Your task to perform on an android device: check google app version Image 0: 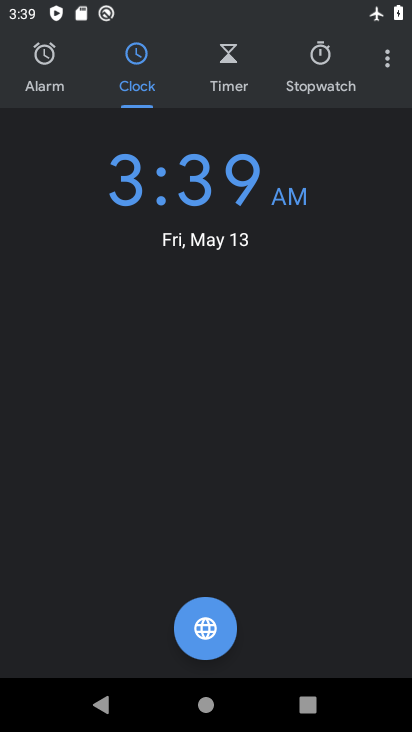
Step 0: press home button
Your task to perform on an android device: check google app version Image 1: 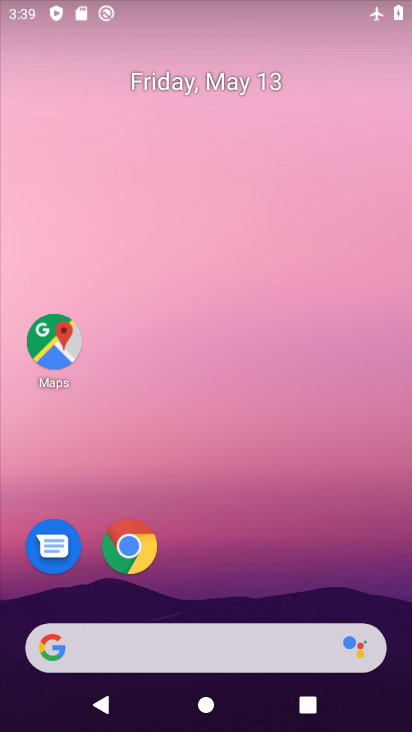
Step 1: drag from (226, 719) to (227, 232)
Your task to perform on an android device: check google app version Image 2: 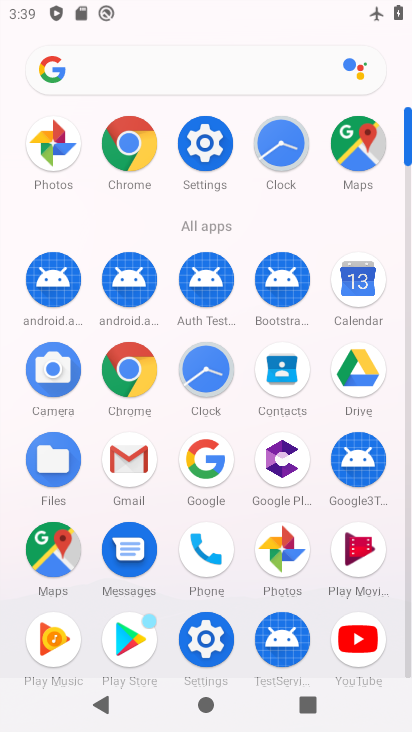
Step 2: click (209, 465)
Your task to perform on an android device: check google app version Image 3: 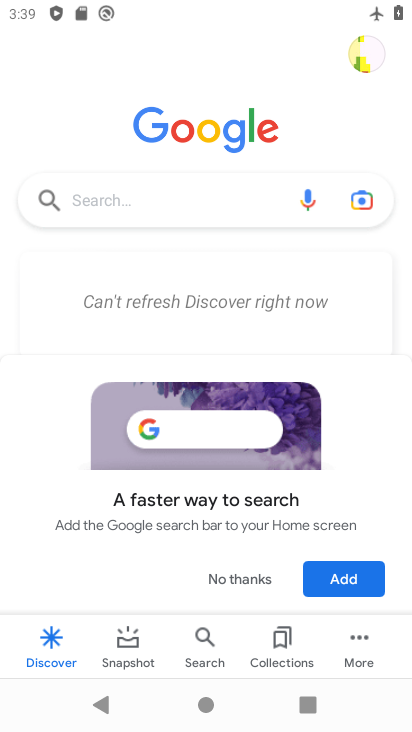
Step 3: click (359, 635)
Your task to perform on an android device: check google app version Image 4: 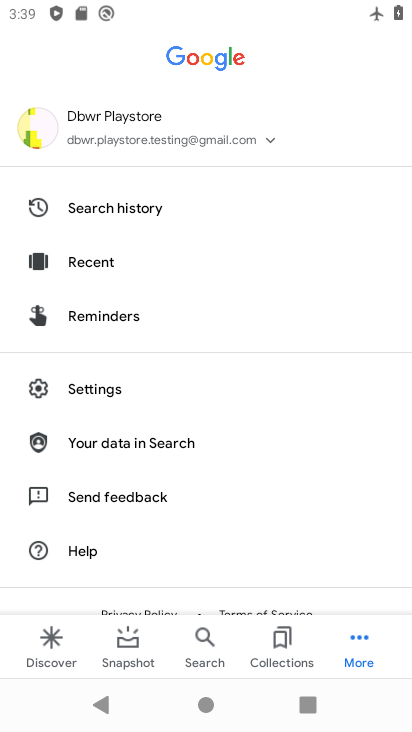
Step 4: drag from (136, 574) to (126, 308)
Your task to perform on an android device: check google app version Image 5: 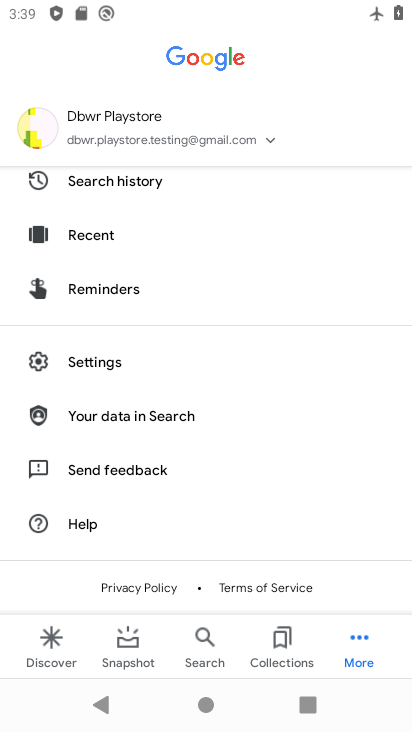
Step 5: click (83, 357)
Your task to perform on an android device: check google app version Image 6: 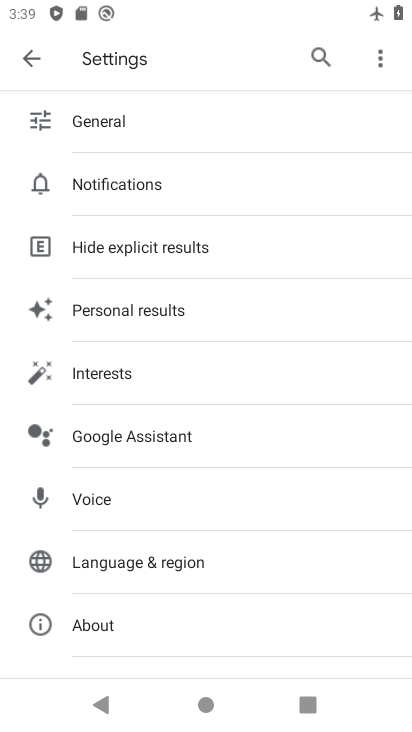
Step 6: drag from (198, 645) to (209, 375)
Your task to perform on an android device: check google app version Image 7: 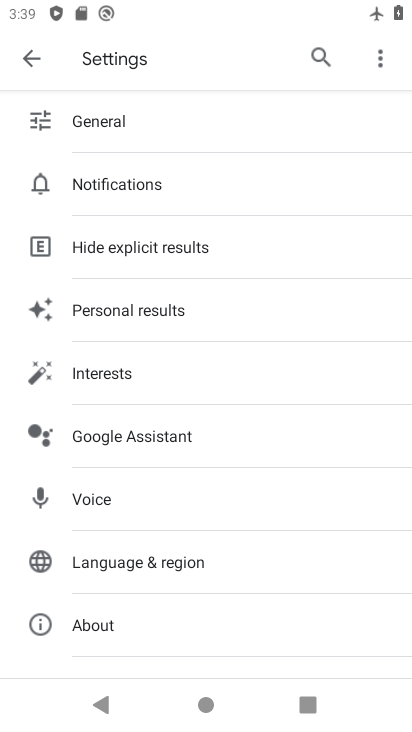
Step 7: click (106, 625)
Your task to perform on an android device: check google app version Image 8: 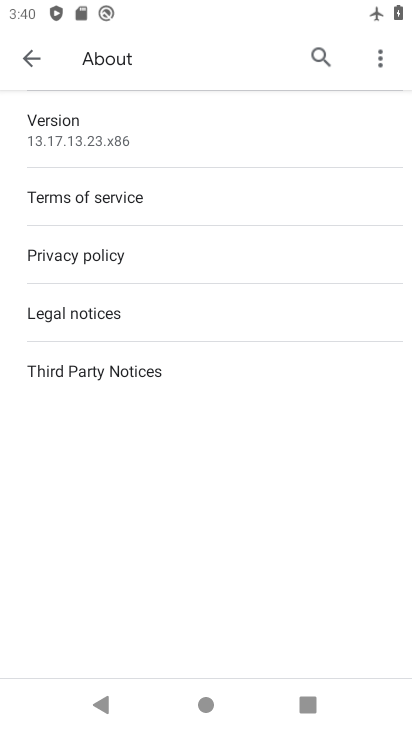
Step 8: task complete